Your task to perform on an android device: Show me popular games on the Play Store Image 0: 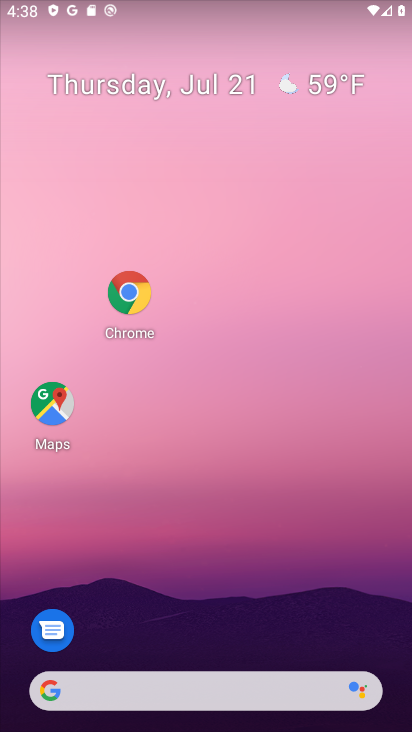
Step 0: drag from (240, 679) to (194, 313)
Your task to perform on an android device: Show me popular games on the Play Store Image 1: 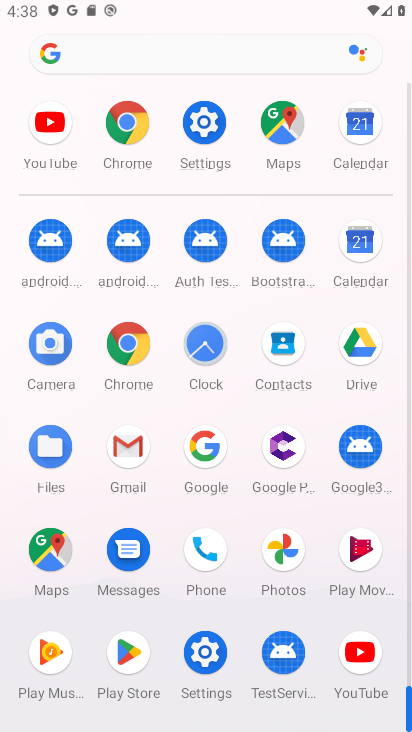
Step 1: click (127, 655)
Your task to perform on an android device: Show me popular games on the Play Store Image 2: 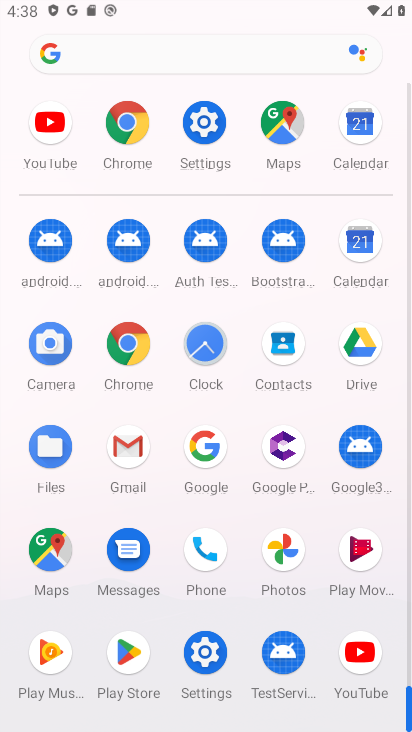
Step 2: click (127, 655)
Your task to perform on an android device: Show me popular games on the Play Store Image 3: 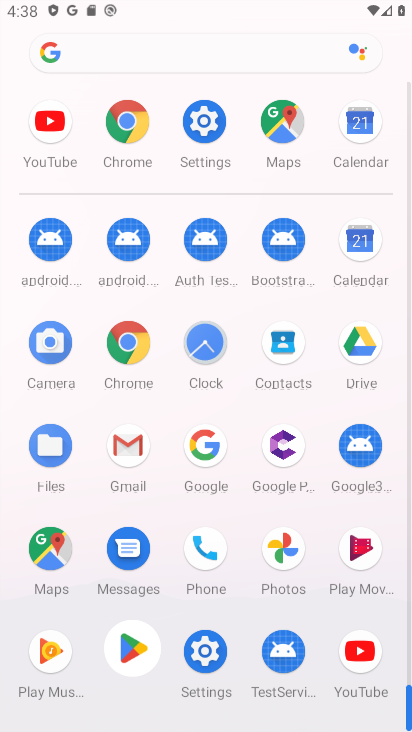
Step 3: click (131, 649)
Your task to perform on an android device: Show me popular games on the Play Store Image 4: 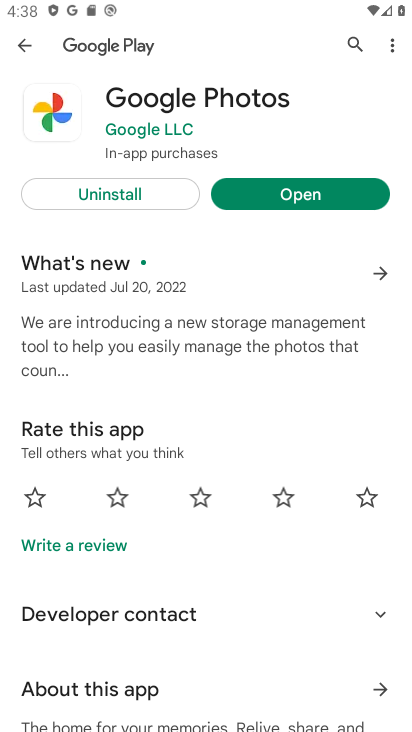
Step 4: click (23, 38)
Your task to perform on an android device: Show me popular games on the Play Store Image 5: 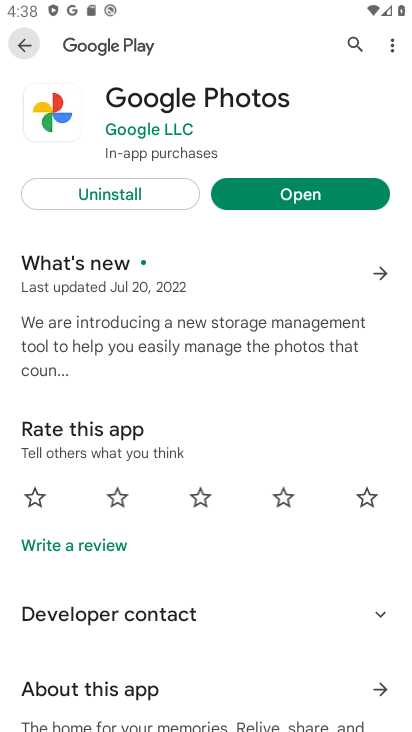
Step 5: click (23, 39)
Your task to perform on an android device: Show me popular games on the Play Store Image 6: 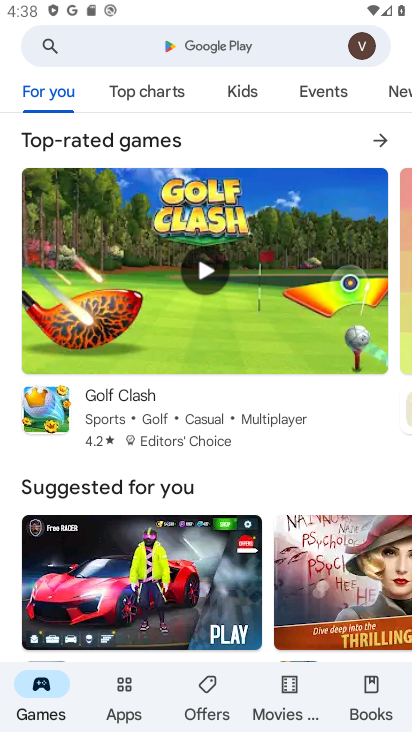
Step 6: click (262, 45)
Your task to perform on an android device: Show me popular games on the Play Store Image 7: 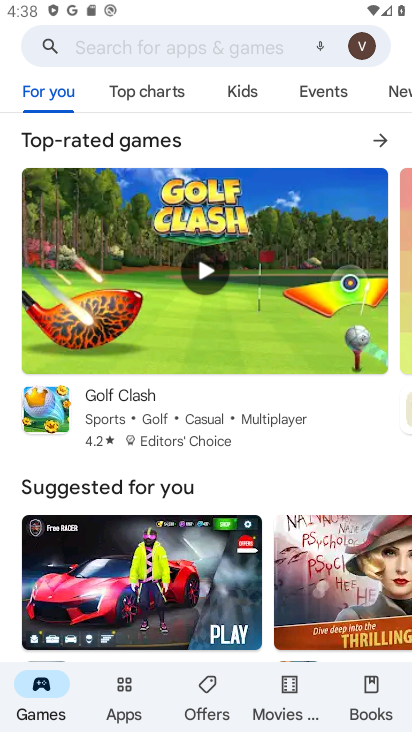
Step 7: click (268, 41)
Your task to perform on an android device: Show me popular games on the Play Store Image 8: 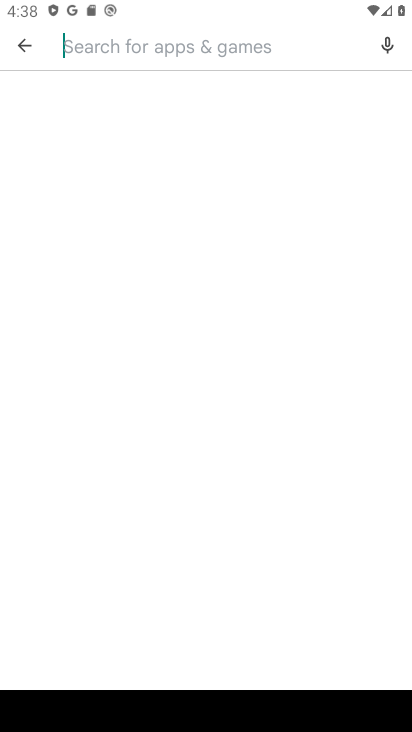
Step 8: type "popular games"
Your task to perform on an android device: Show me popular games on the Play Store Image 9: 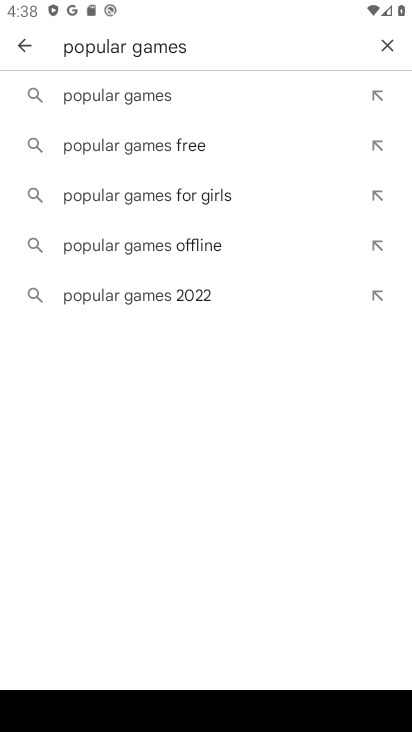
Step 9: click (118, 84)
Your task to perform on an android device: Show me popular games on the Play Store Image 10: 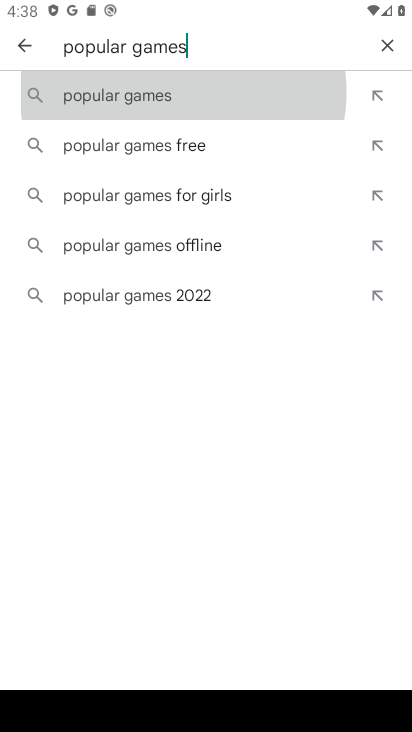
Step 10: click (122, 86)
Your task to perform on an android device: Show me popular games on the Play Store Image 11: 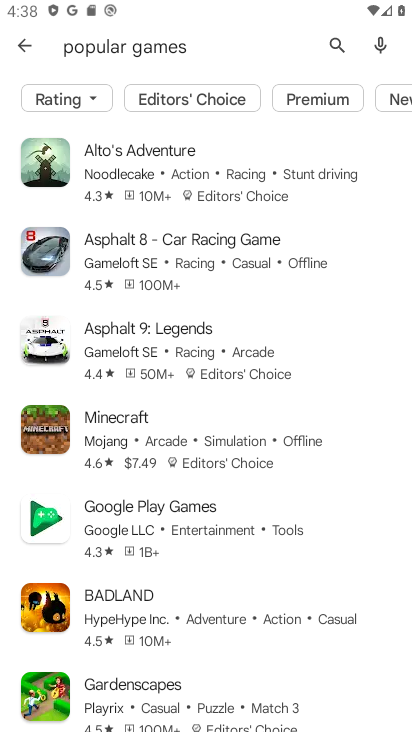
Step 11: task complete